Your task to perform on an android device: Open Google Maps and go to "Timeline" Image 0: 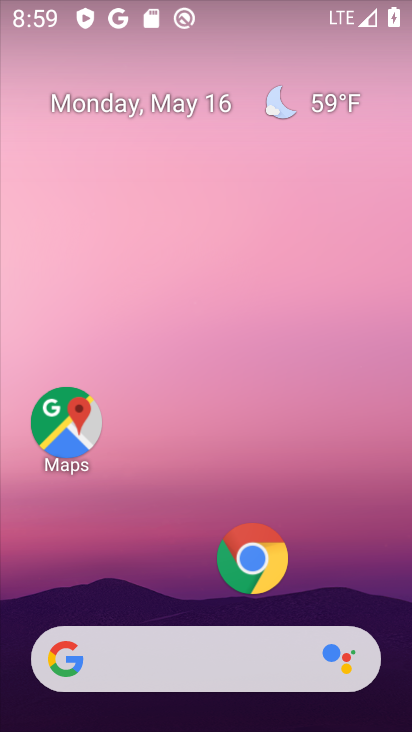
Step 0: click (58, 419)
Your task to perform on an android device: Open Google Maps and go to "Timeline" Image 1: 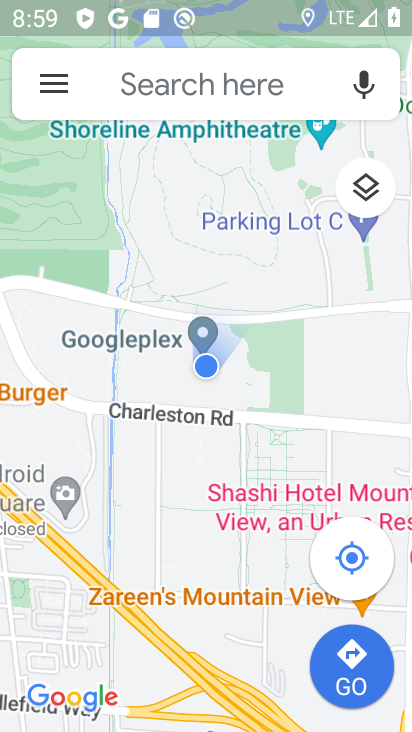
Step 1: click (64, 80)
Your task to perform on an android device: Open Google Maps and go to "Timeline" Image 2: 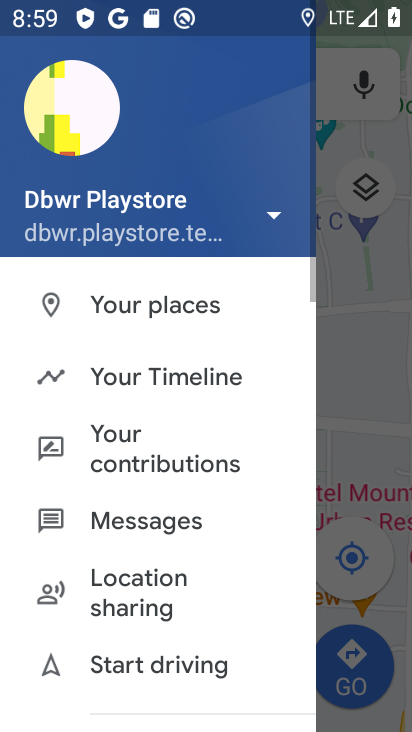
Step 2: click (145, 373)
Your task to perform on an android device: Open Google Maps and go to "Timeline" Image 3: 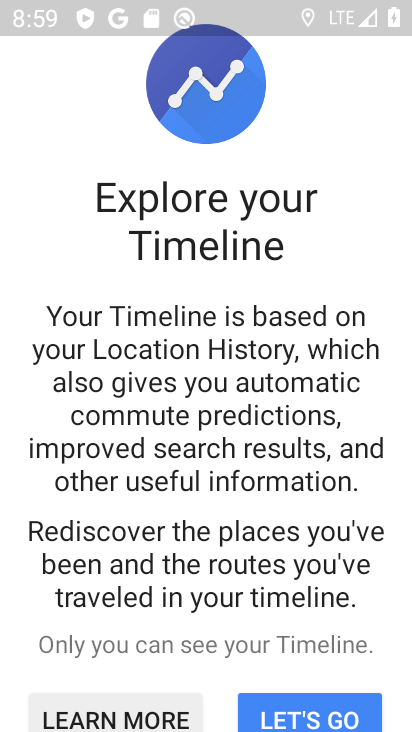
Step 3: task complete